Your task to perform on an android device: manage bookmarks in the chrome app Image 0: 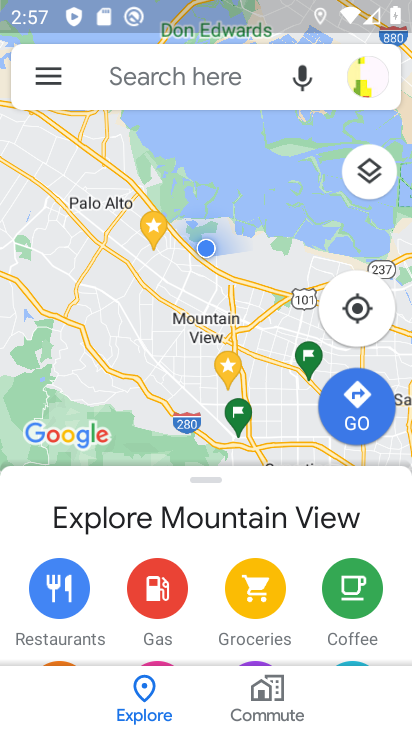
Step 0: press home button
Your task to perform on an android device: manage bookmarks in the chrome app Image 1: 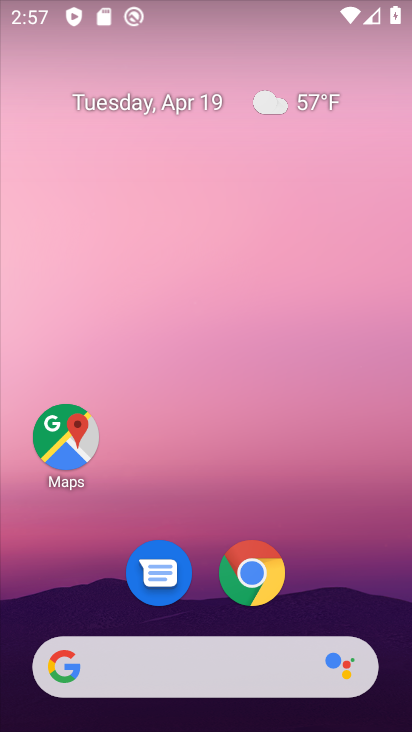
Step 1: click (243, 574)
Your task to perform on an android device: manage bookmarks in the chrome app Image 2: 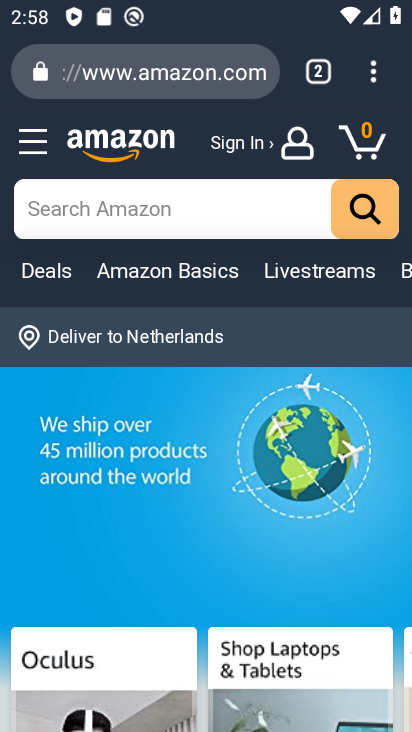
Step 2: click (373, 81)
Your task to perform on an android device: manage bookmarks in the chrome app Image 3: 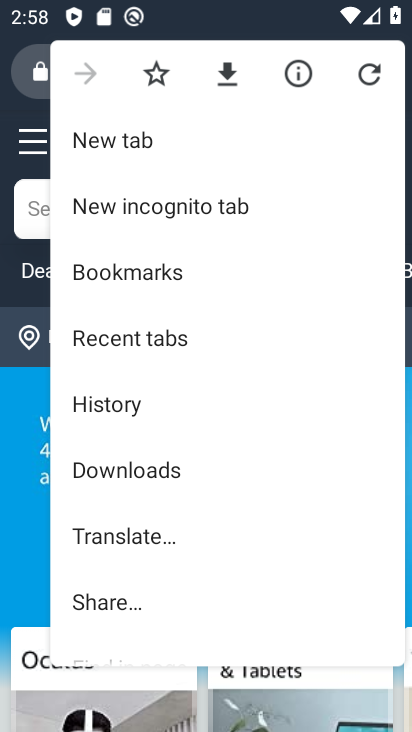
Step 3: click (117, 272)
Your task to perform on an android device: manage bookmarks in the chrome app Image 4: 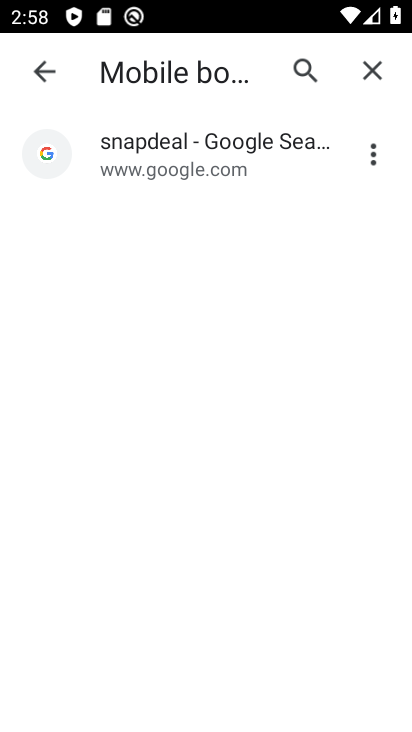
Step 4: click (374, 157)
Your task to perform on an android device: manage bookmarks in the chrome app Image 5: 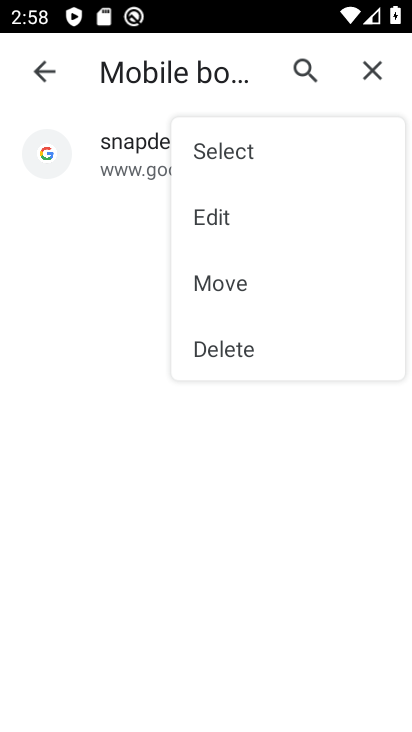
Step 5: click (233, 285)
Your task to perform on an android device: manage bookmarks in the chrome app Image 6: 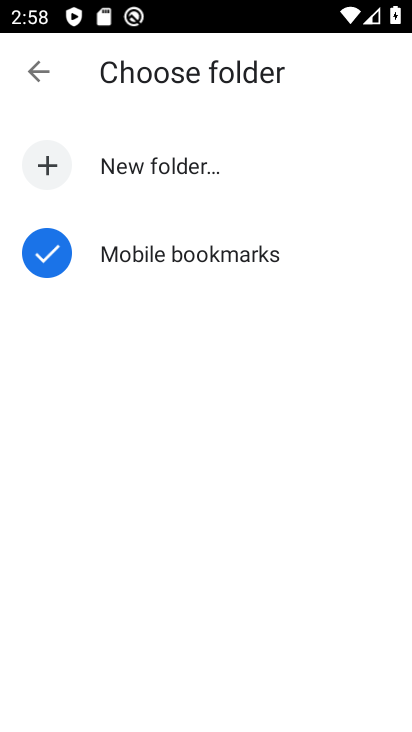
Step 6: click (147, 258)
Your task to perform on an android device: manage bookmarks in the chrome app Image 7: 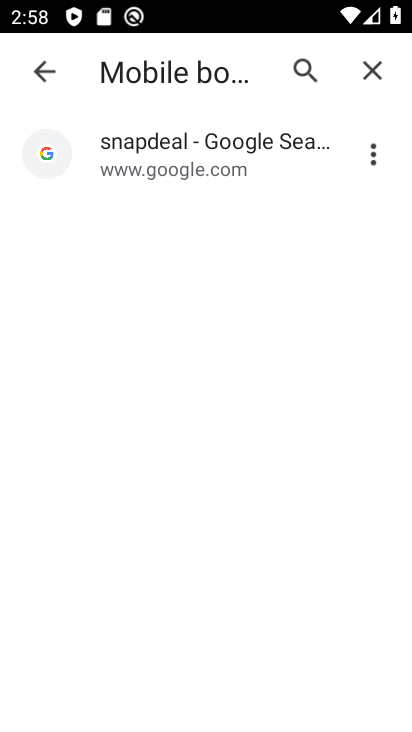
Step 7: click (373, 156)
Your task to perform on an android device: manage bookmarks in the chrome app Image 8: 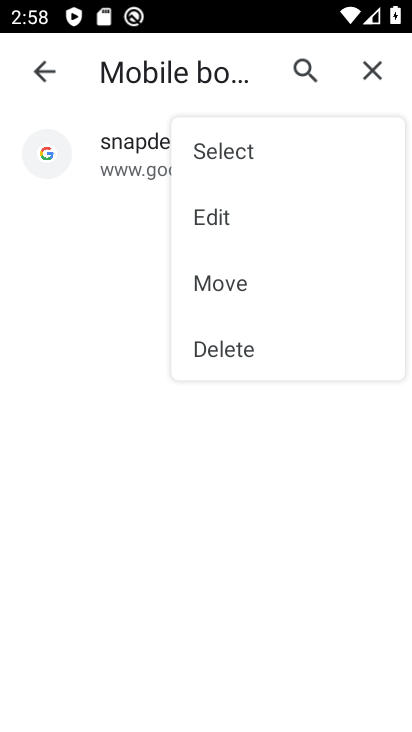
Step 8: click (209, 287)
Your task to perform on an android device: manage bookmarks in the chrome app Image 9: 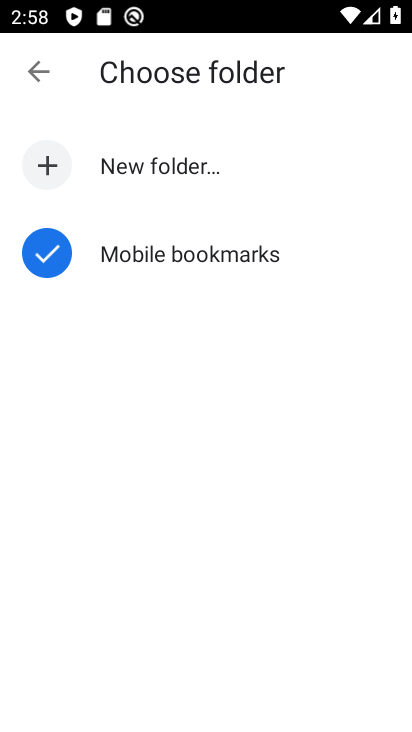
Step 9: click (141, 173)
Your task to perform on an android device: manage bookmarks in the chrome app Image 10: 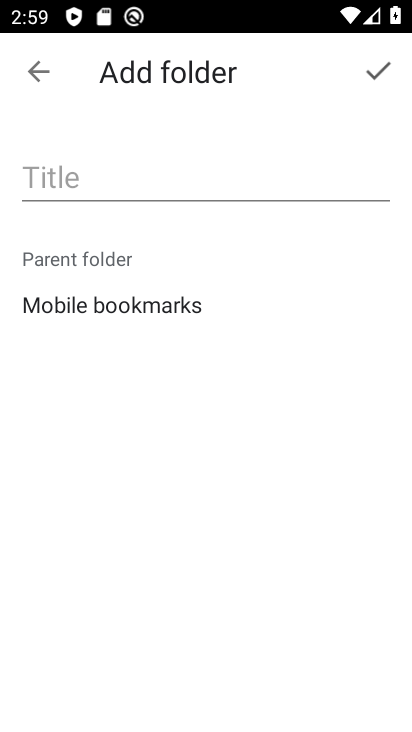
Step 10: click (122, 190)
Your task to perform on an android device: manage bookmarks in the chrome app Image 11: 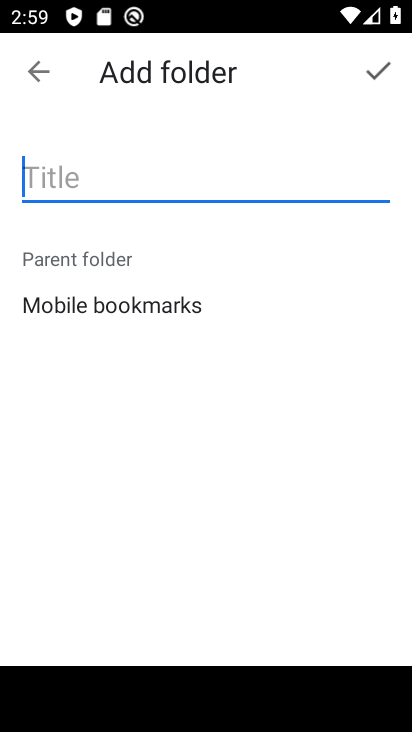
Step 11: type "my folder"
Your task to perform on an android device: manage bookmarks in the chrome app Image 12: 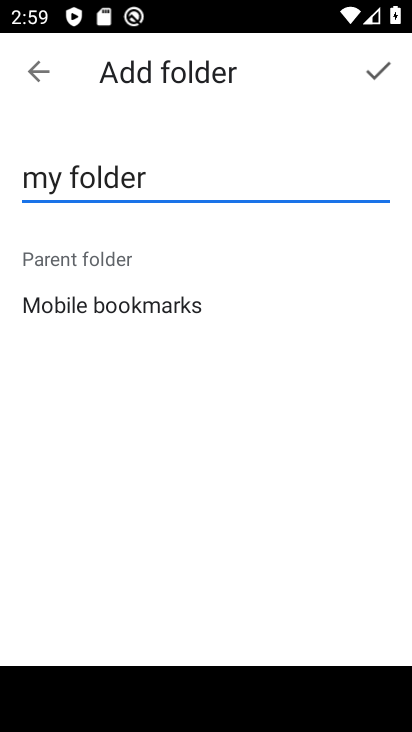
Step 12: click (387, 70)
Your task to perform on an android device: manage bookmarks in the chrome app Image 13: 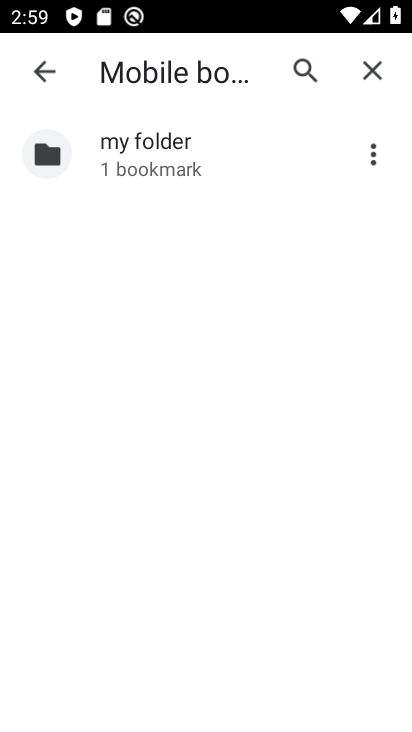
Step 13: task complete